Your task to perform on an android device: turn notification dots off Image 0: 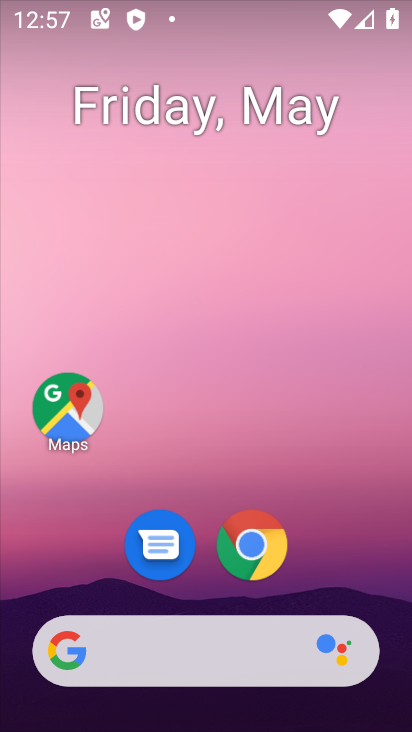
Step 0: drag from (336, 581) to (293, 104)
Your task to perform on an android device: turn notification dots off Image 1: 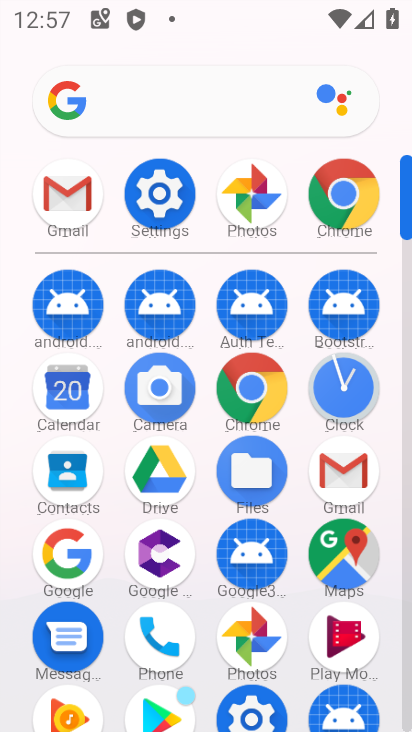
Step 1: click (156, 189)
Your task to perform on an android device: turn notification dots off Image 2: 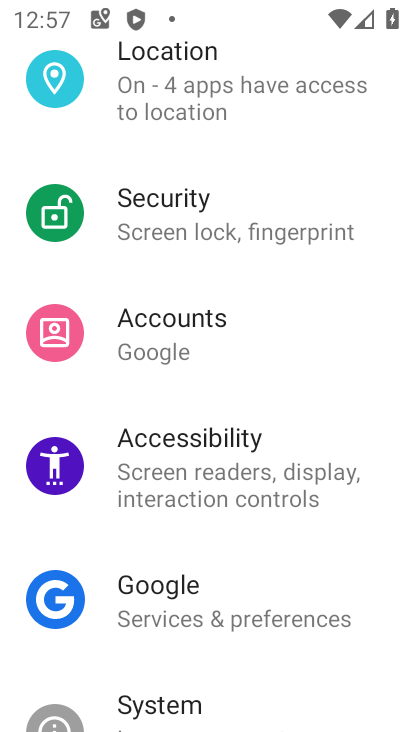
Step 2: drag from (295, 156) to (303, 508)
Your task to perform on an android device: turn notification dots off Image 3: 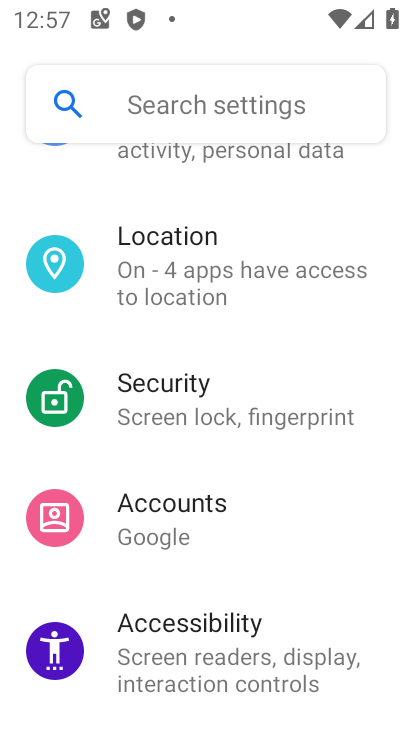
Step 3: drag from (309, 231) to (291, 527)
Your task to perform on an android device: turn notification dots off Image 4: 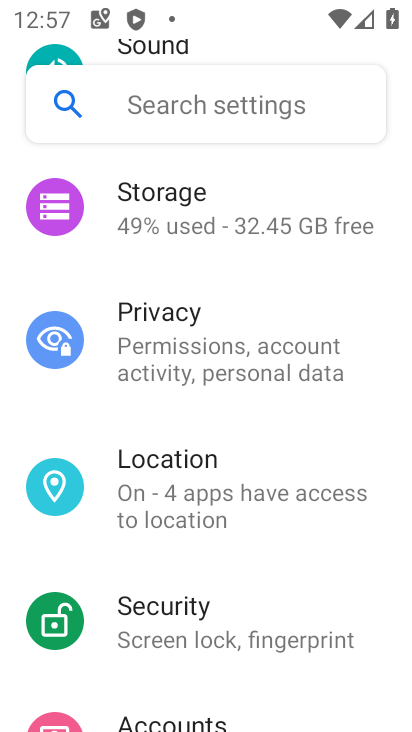
Step 4: drag from (290, 289) to (268, 559)
Your task to perform on an android device: turn notification dots off Image 5: 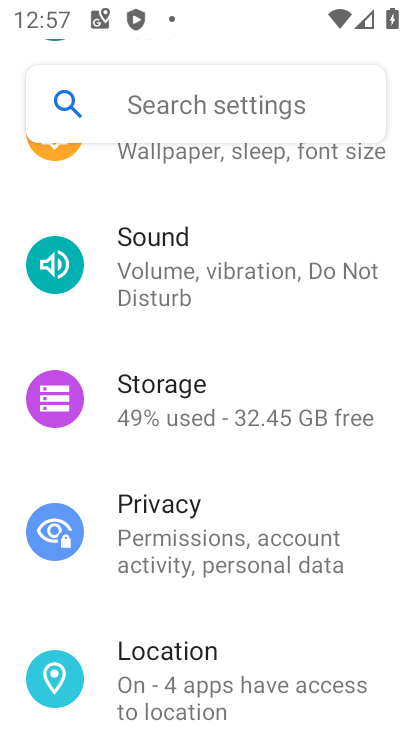
Step 5: drag from (304, 331) to (288, 621)
Your task to perform on an android device: turn notification dots off Image 6: 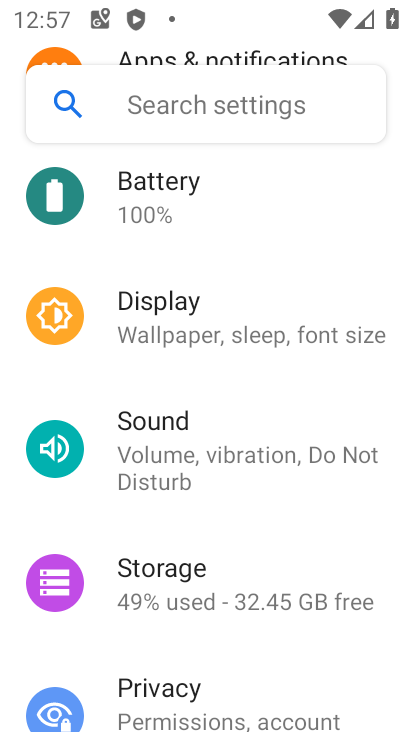
Step 6: drag from (307, 260) to (267, 513)
Your task to perform on an android device: turn notification dots off Image 7: 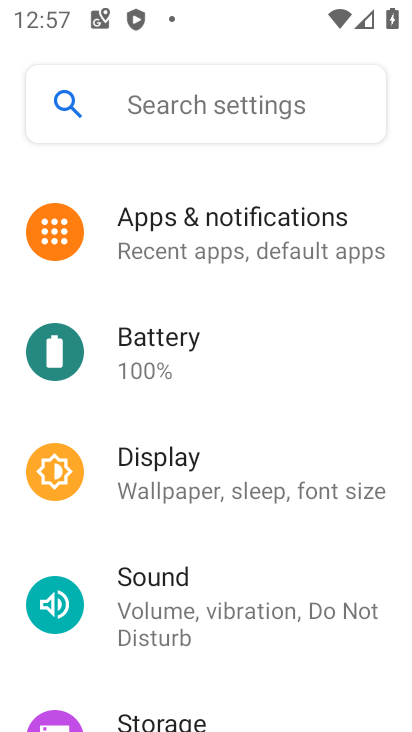
Step 7: click (273, 225)
Your task to perform on an android device: turn notification dots off Image 8: 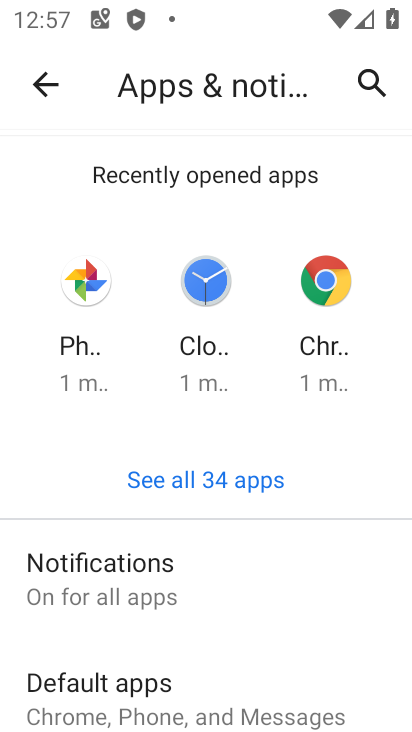
Step 8: click (145, 596)
Your task to perform on an android device: turn notification dots off Image 9: 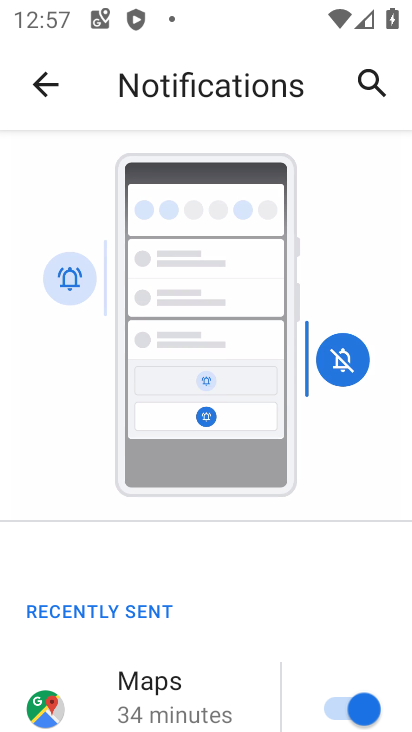
Step 9: drag from (256, 632) to (227, 179)
Your task to perform on an android device: turn notification dots off Image 10: 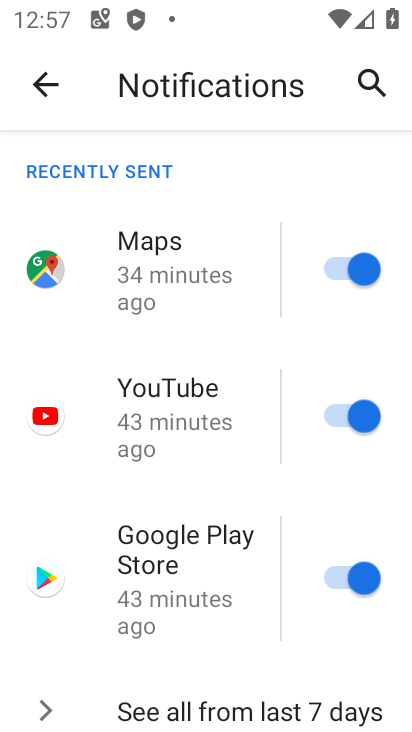
Step 10: drag from (233, 648) to (268, 163)
Your task to perform on an android device: turn notification dots off Image 11: 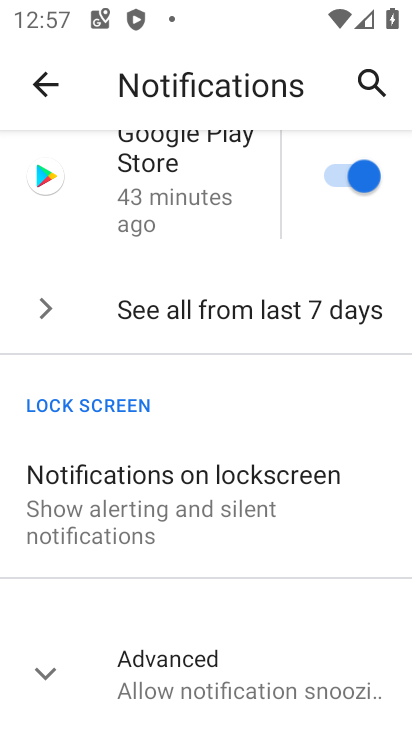
Step 11: click (224, 671)
Your task to perform on an android device: turn notification dots off Image 12: 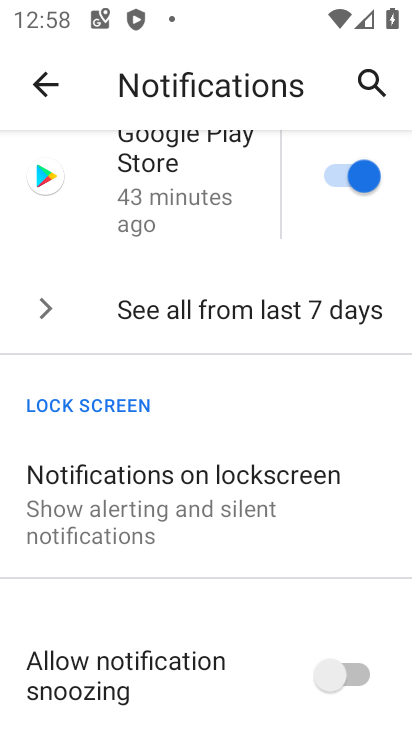
Step 12: drag from (239, 621) to (248, 230)
Your task to perform on an android device: turn notification dots off Image 13: 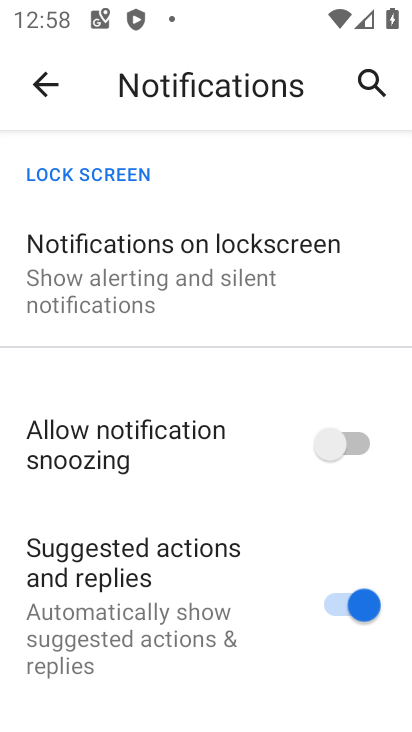
Step 13: drag from (208, 609) to (233, 260)
Your task to perform on an android device: turn notification dots off Image 14: 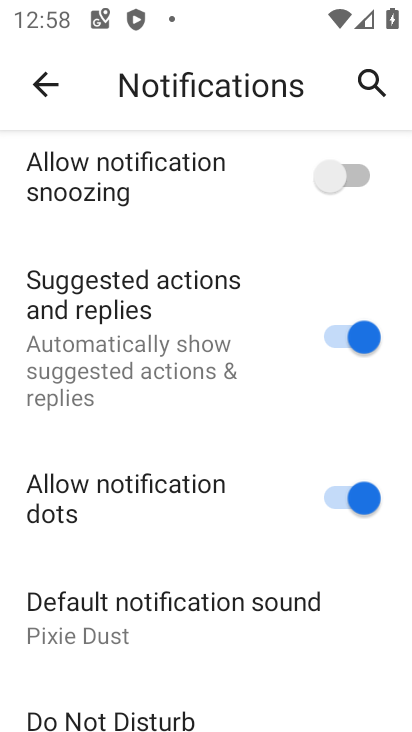
Step 14: click (331, 497)
Your task to perform on an android device: turn notification dots off Image 15: 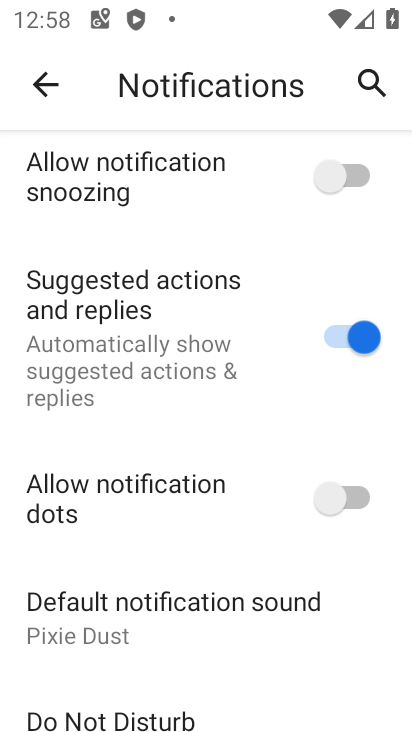
Step 15: task complete